Your task to perform on an android device: Is it going to rain tomorrow? Image 0: 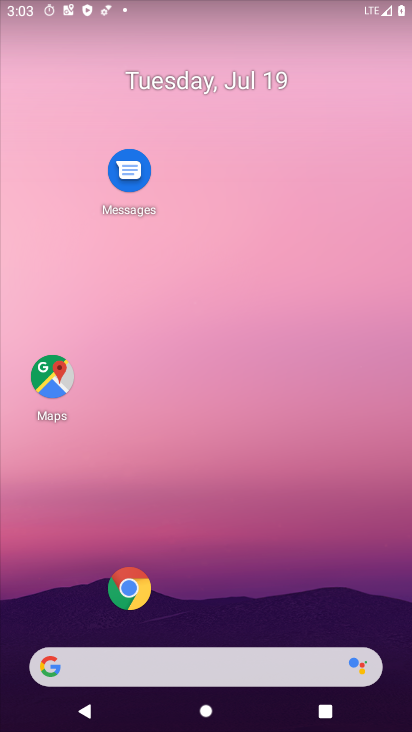
Step 0: click (128, 674)
Your task to perform on an android device: Is it going to rain tomorrow? Image 1: 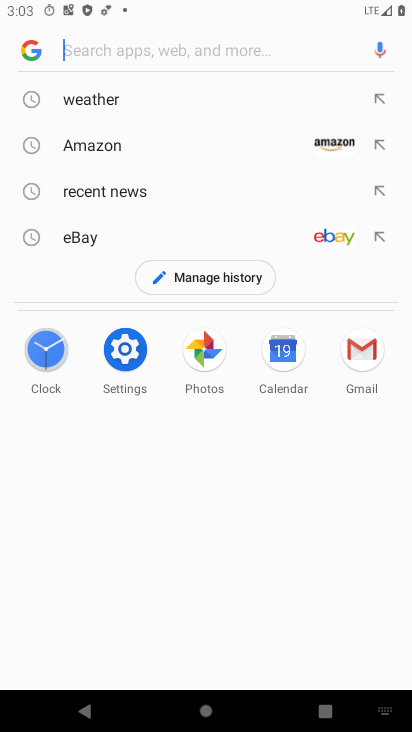
Step 1: type "Is it going to rain tomorrow?"
Your task to perform on an android device: Is it going to rain tomorrow? Image 2: 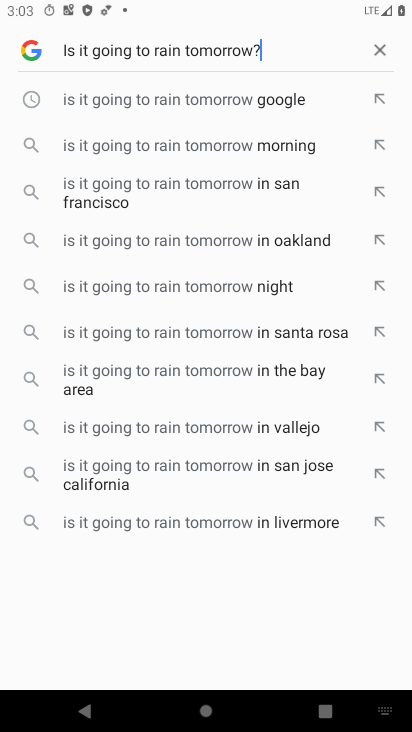
Step 2: type ""
Your task to perform on an android device: Is it going to rain tomorrow? Image 3: 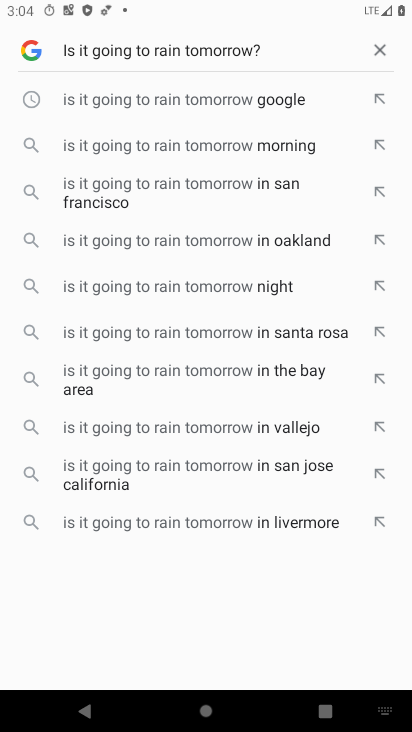
Step 3: type ""
Your task to perform on an android device: Is it going to rain tomorrow? Image 4: 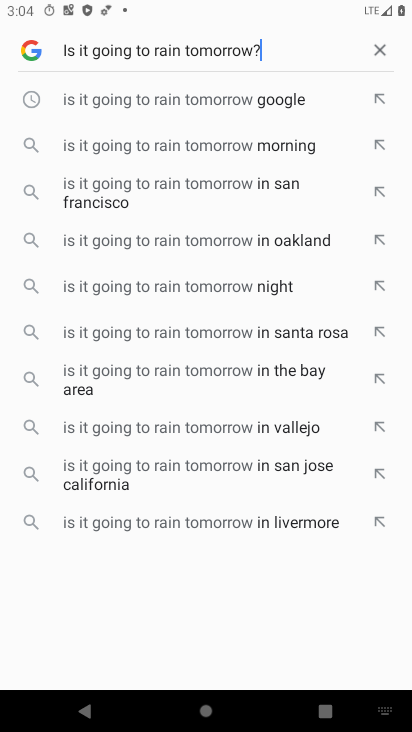
Step 4: type ""
Your task to perform on an android device: Is it going to rain tomorrow? Image 5: 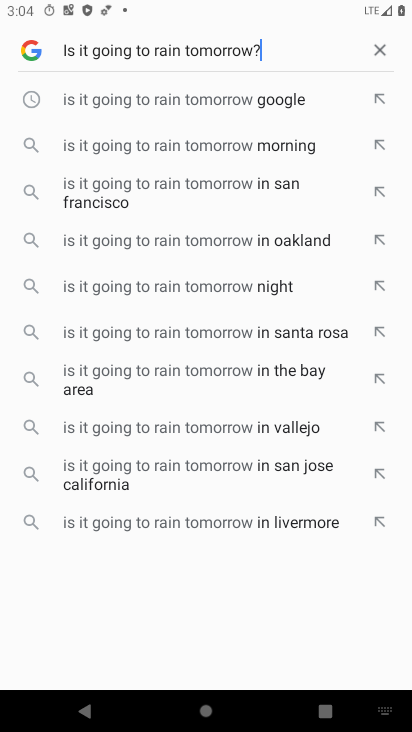
Step 5: task complete